Your task to perform on an android device: toggle translation in the chrome app Image 0: 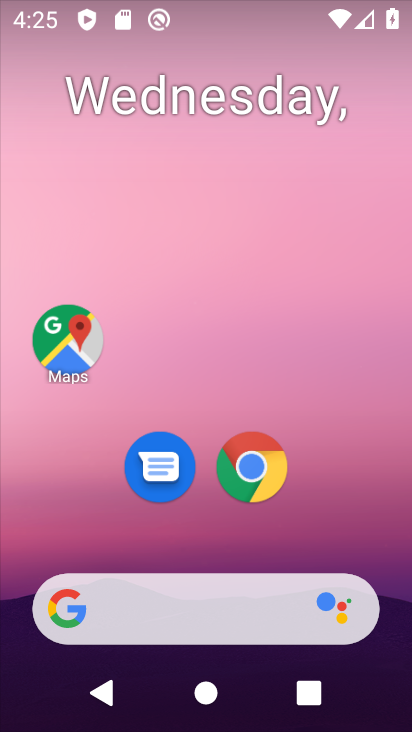
Step 0: click (254, 457)
Your task to perform on an android device: toggle translation in the chrome app Image 1: 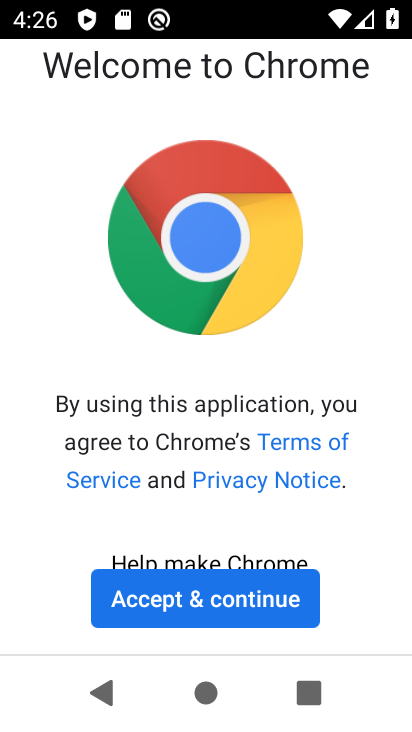
Step 1: click (239, 592)
Your task to perform on an android device: toggle translation in the chrome app Image 2: 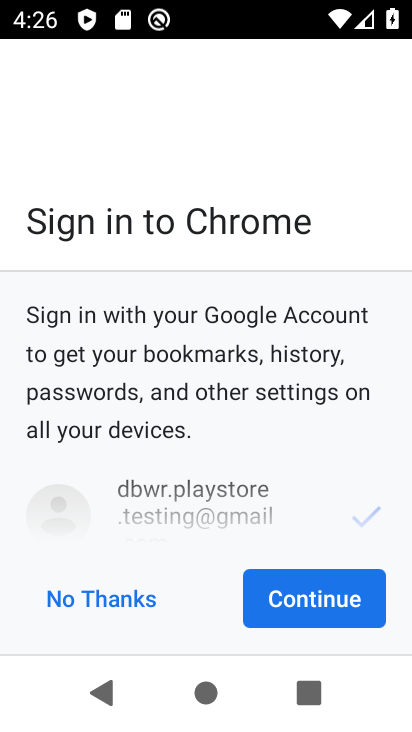
Step 2: click (281, 597)
Your task to perform on an android device: toggle translation in the chrome app Image 3: 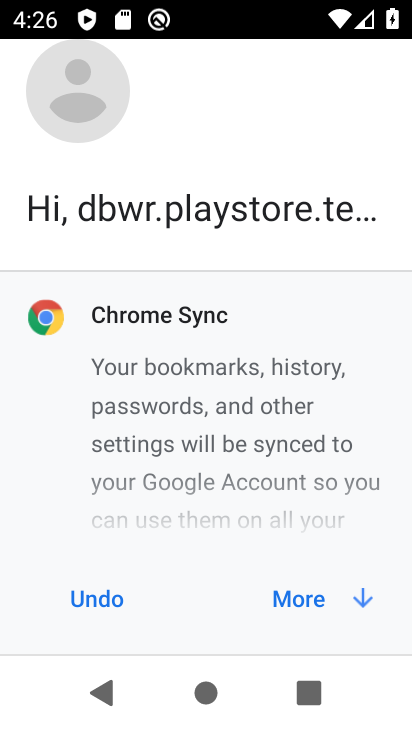
Step 3: click (277, 597)
Your task to perform on an android device: toggle translation in the chrome app Image 4: 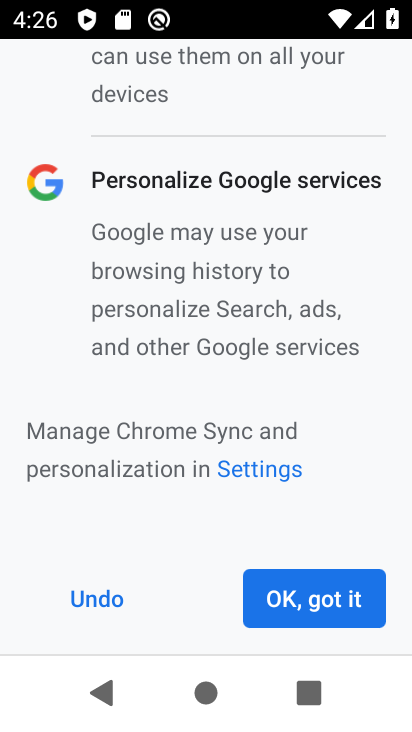
Step 4: click (278, 598)
Your task to perform on an android device: toggle translation in the chrome app Image 5: 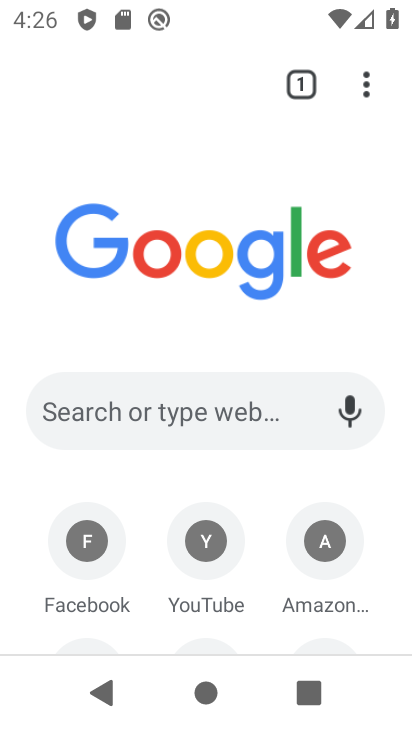
Step 5: drag from (373, 80) to (199, 511)
Your task to perform on an android device: toggle translation in the chrome app Image 6: 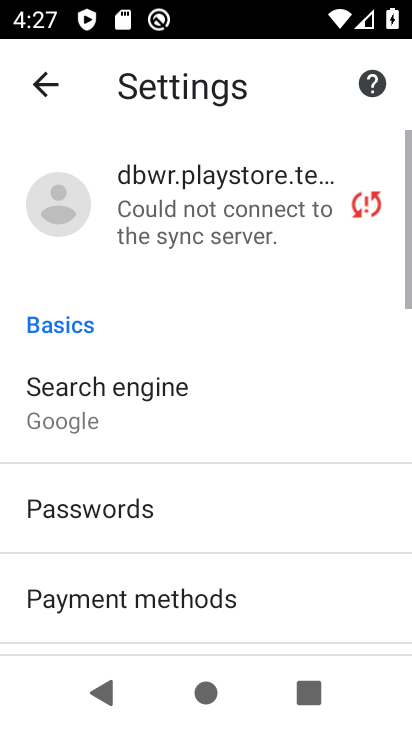
Step 6: drag from (252, 572) to (258, 139)
Your task to perform on an android device: toggle translation in the chrome app Image 7: 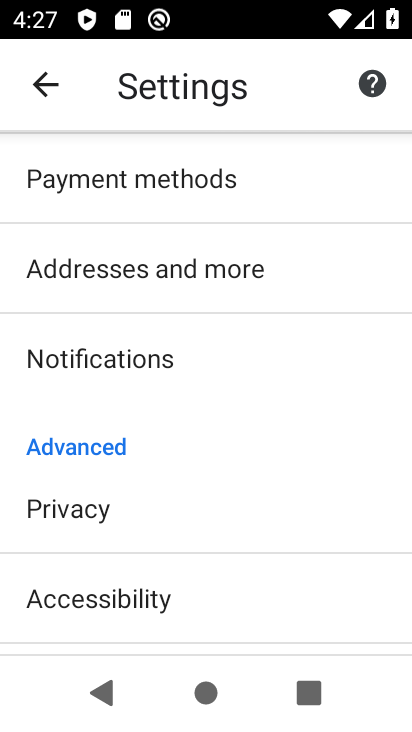
Step 7: drag from (186, 559) to (206, 214)
Your task to perform on an android device: toggle translation in the chrome app Image 8: 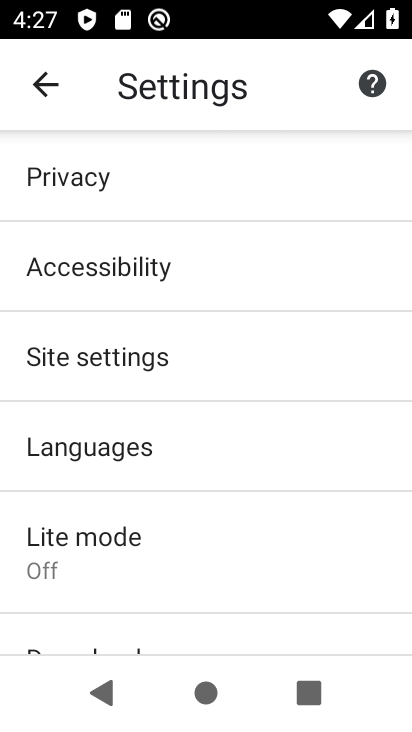
Step 8: click (130, 442)
Your task to perform on an android device: toggle translation in the chrome app Image 9: 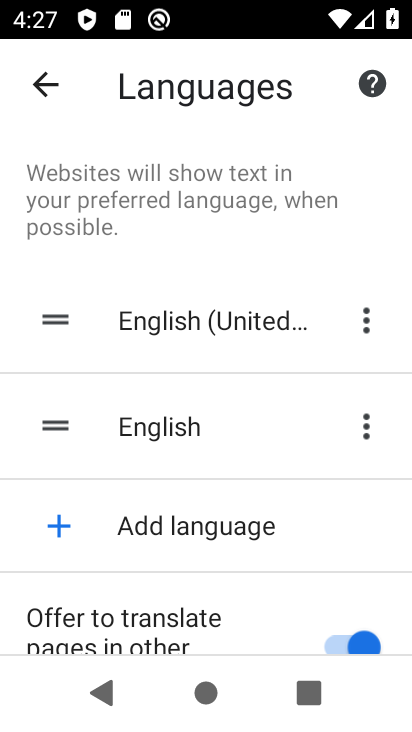
Step 9: click (344, 630)
Your task to perform on an android device: toggle translation in the chrome app Image 10: 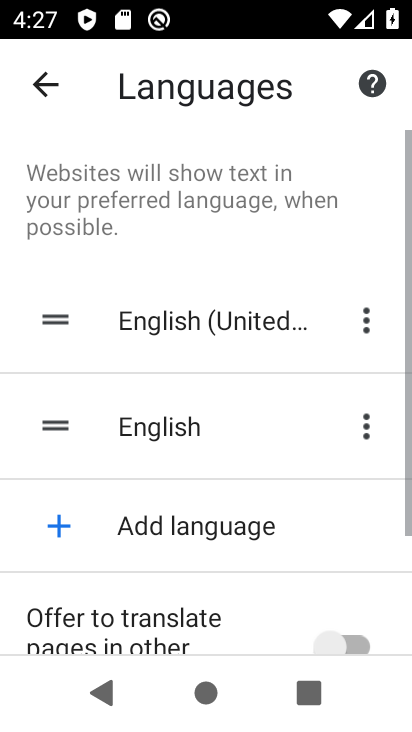
Step 10: task complete